Your task to perform on an android device: Open the calendar app, open the side menu, and click the "Day" option Image 0: 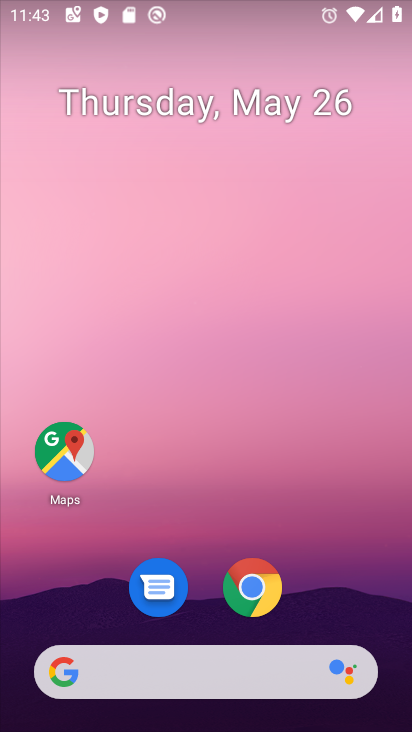
Step 0: press home button
Your task to perform on an android device: Open the calendar app, open the side menu, and click the "Day" option Image 1: 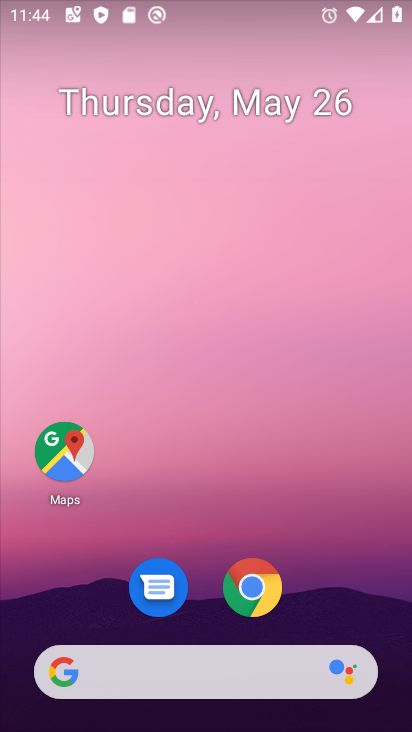
Step 1: drag from (281, 554) to (346, 13)
Your task to perform on an android device: Open the calendar app, open the side menu, and click the "Day" option Image 2: 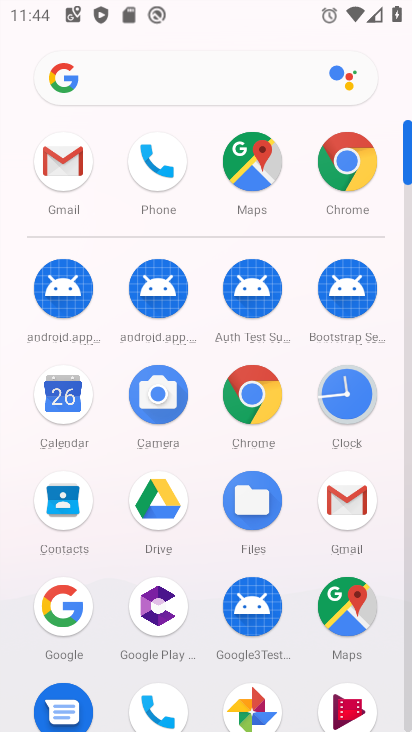
Step 2: click (60, 424)
Your task to perform on an android device: Open the calendar app, open the side menu, and click the "Day" option Image 3: 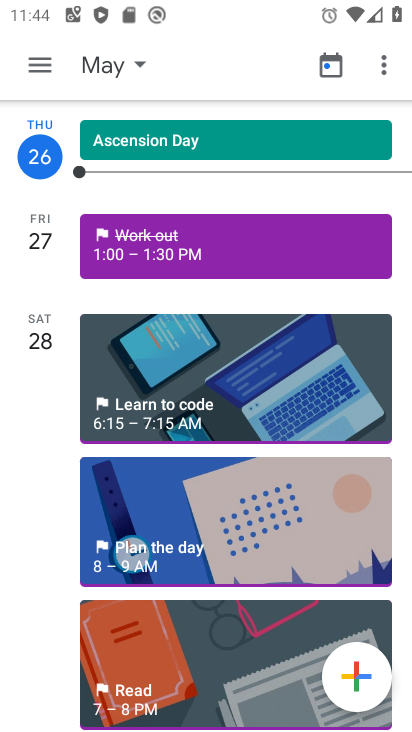
Step 3: click (20, 63)
Your task to perform on an android device: Open the calendar app, open the side menu, and click the "Day" option Image 4: 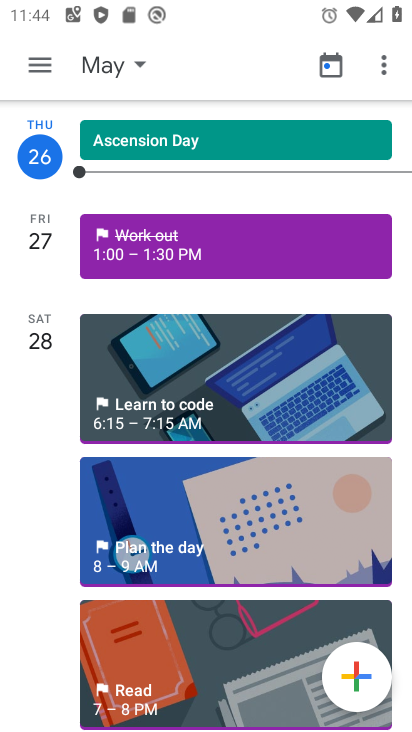
Step 4: click (23, 77)
Your task to perform on an android device: Open the calendar app, open the side menu, and click the "Day" option Image 5: 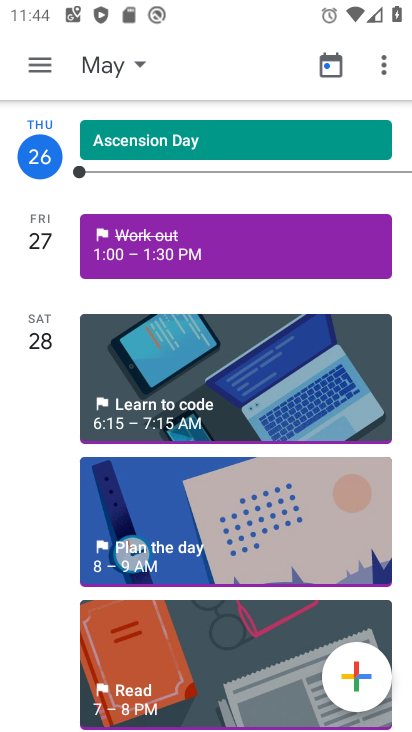
Step 5: click (23, 78)
Your task to perform on an android device: Open the calendar app, open the side menu, and click the "Day" option Image 6: 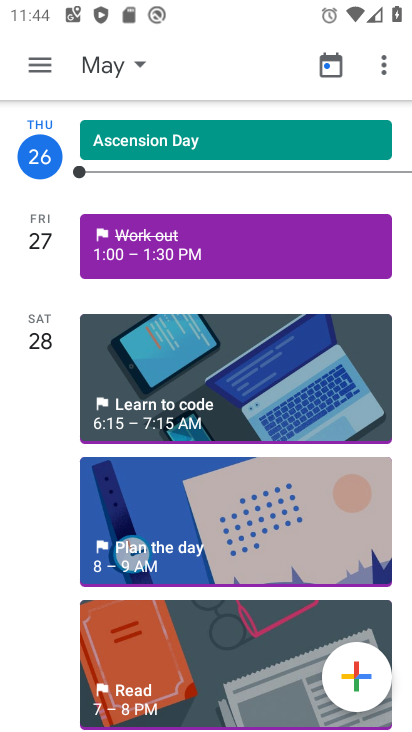
Step 6: click (51, 53)
Your task to perform on an android device: Open the calendar app, open the side menu, and click the "Day" option Image 7: 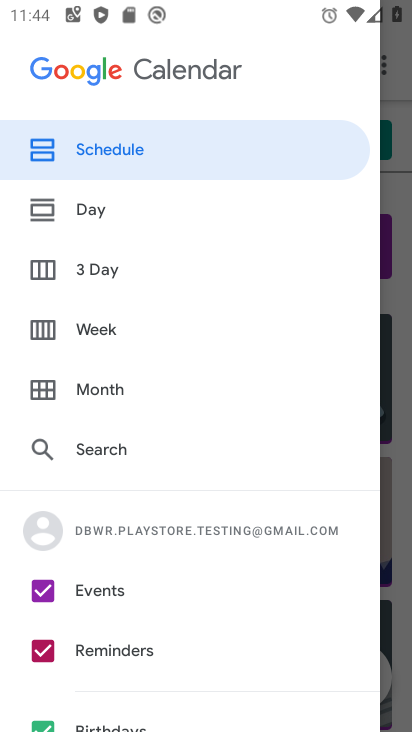
Step 7: click (119, 211)
Your task to perform on an android device: Open the calendar app, open the side menu, and click the "Day" option Image 8: 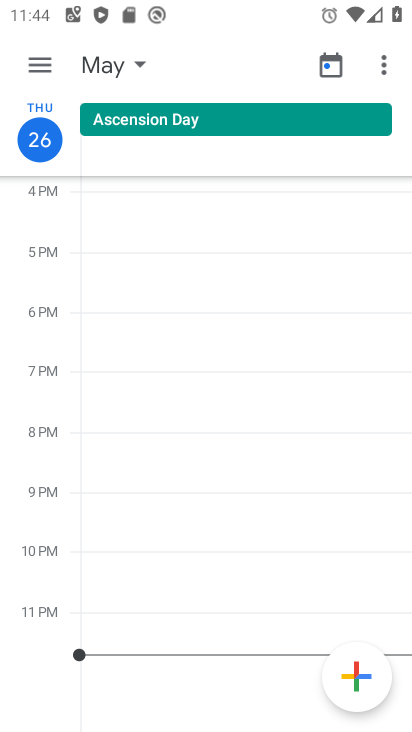
Step 8: task complete